Your task to perform on an android device: Open the stopwatch Image 0: 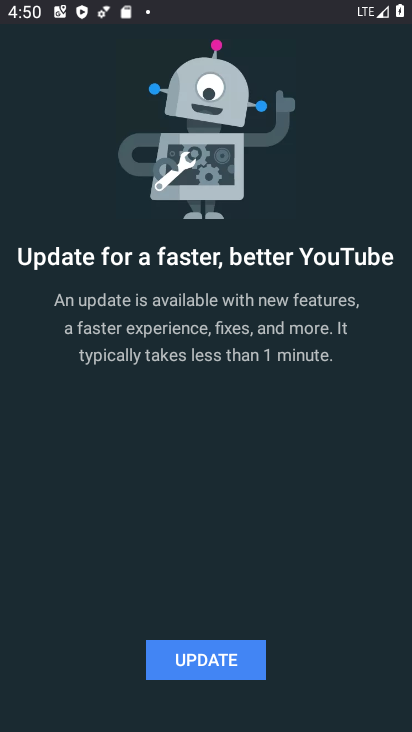
Step 0: press home button
Your task to perform on an android device: Open the stopwatch Image 1: 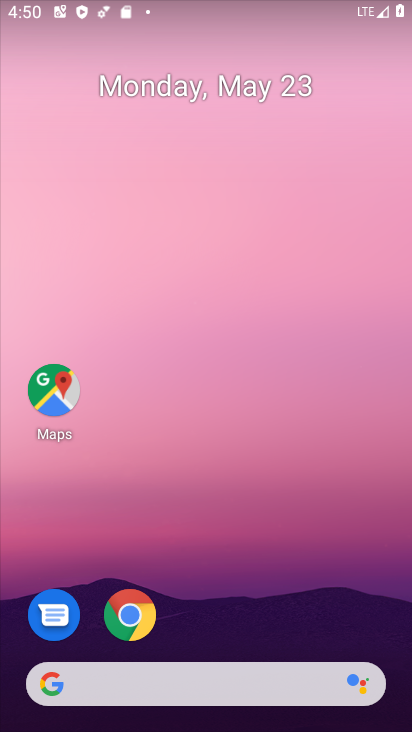
Step 1: drag from (265, 595) to (329, 92)
Your task to perform on an android device: Open the stopwatch Image 2: 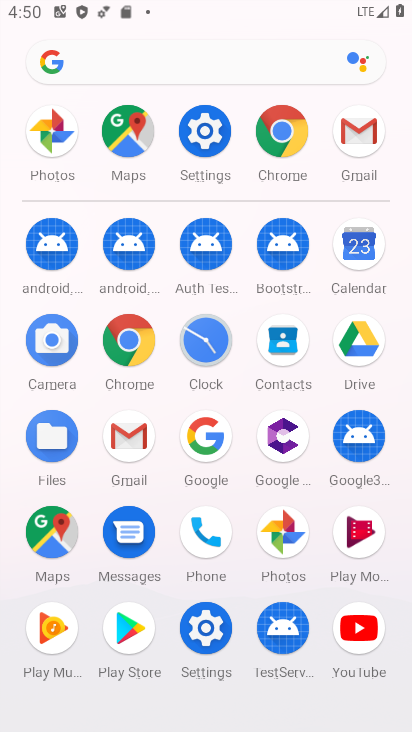
Step 2: click (201, 326)
Your task to perform on an android device: Open the stopwatch Image 3: 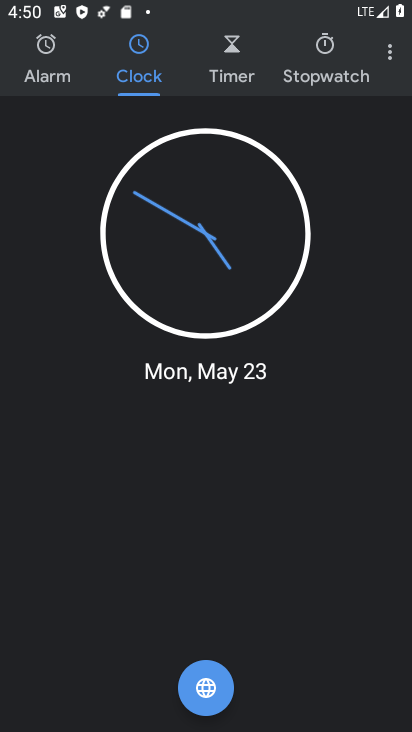
Step 3: click (321, 46)
Your task to perform on an android device: Open the stopwatch Image 4: 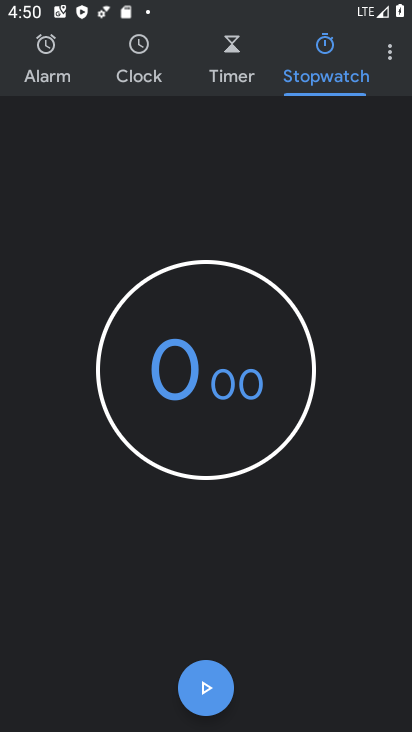
Step 4: task complete